Your task to perform on an android device: Go to ESPN.com Image 0: 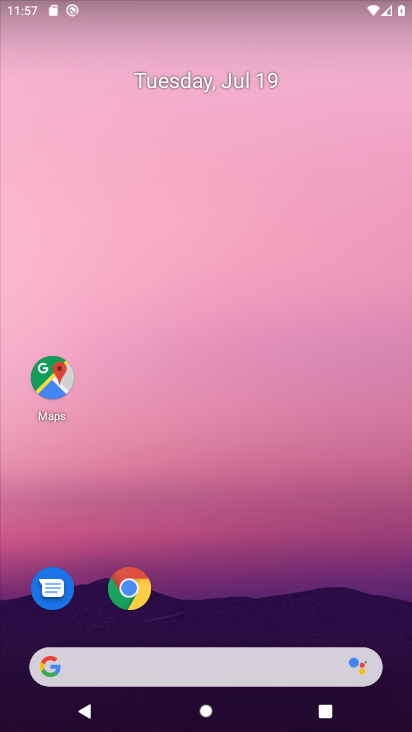
Step 0: click (129, 586)
Your task to perform on an android device: Go to ESPN.com Image 1: 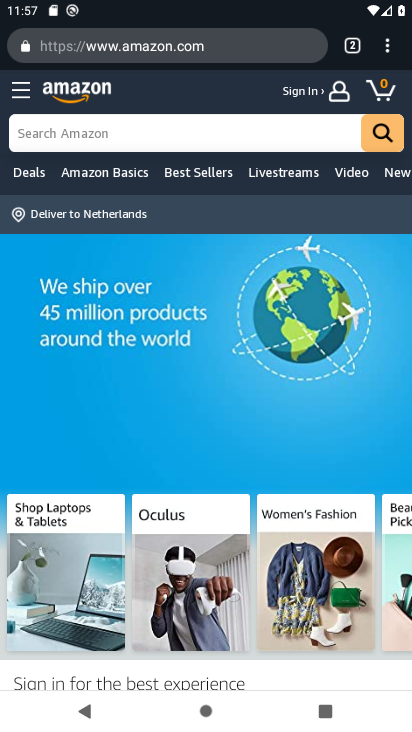
Step 1: click (155, 39)
Your task to perform on an android device: Go to ESPN.com Image 2: 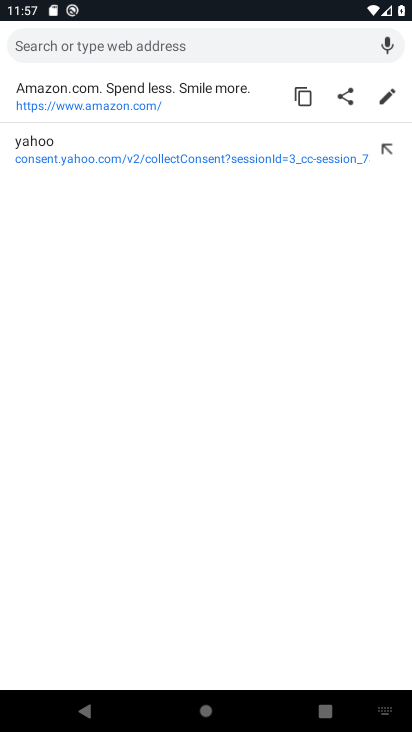
Step 2: type "ESPN.com"
Your task to perform on an android device: Go to ESPN.com Image 3: 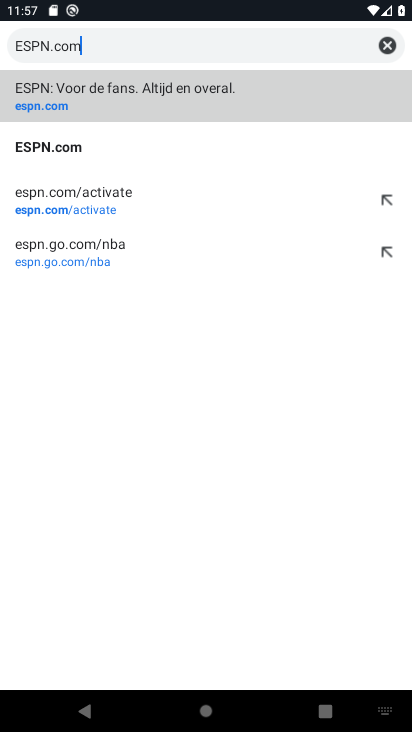
Step 3: click (112, 98)
Your task to perform on an android device: Go to ESPN.com Image 4: 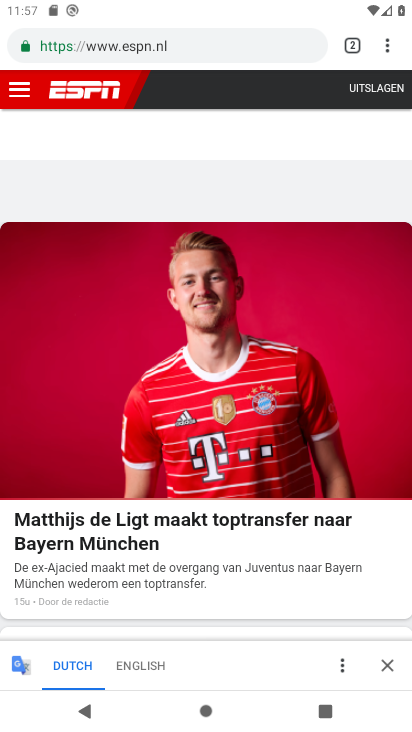
Step 4: task complete